Your task to perform on an android device: Go to wifi settings Image 0: 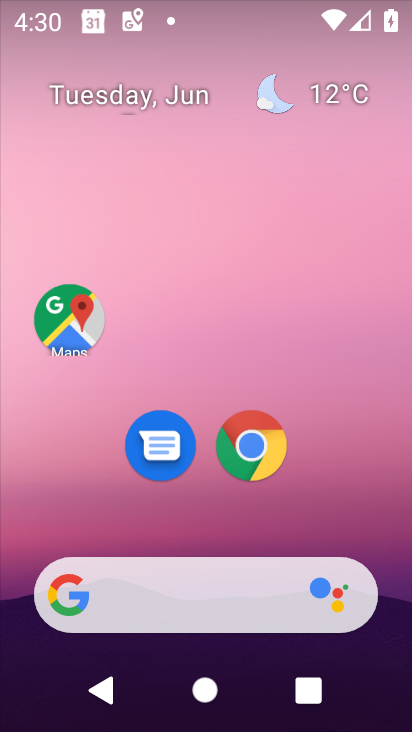
Step 0: drag from (363, 468) to (324, 17)
Your task to perform on an android device: Go to wifi settings Image 1: 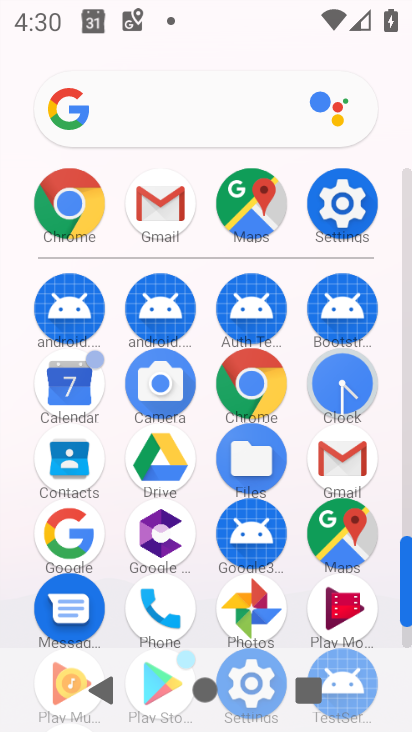
Step 1: click (346, 230)
Your task to perform on an android device: Go to wifi settings Image 2: 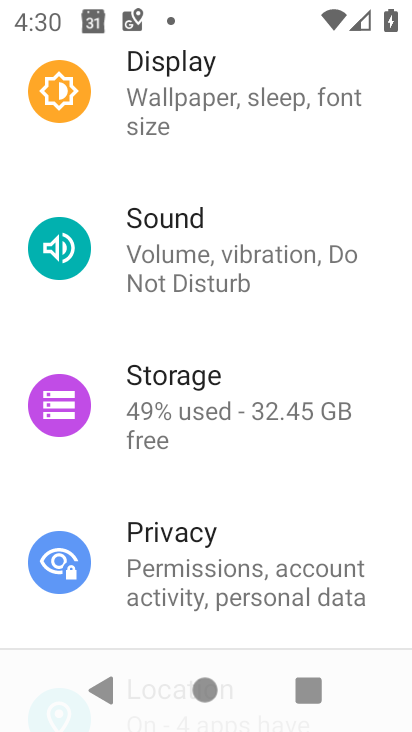
Step 2: drag from (275, 191) to (234, 646)
Your task to perform on an android device: Go to wifi settings Image 3: 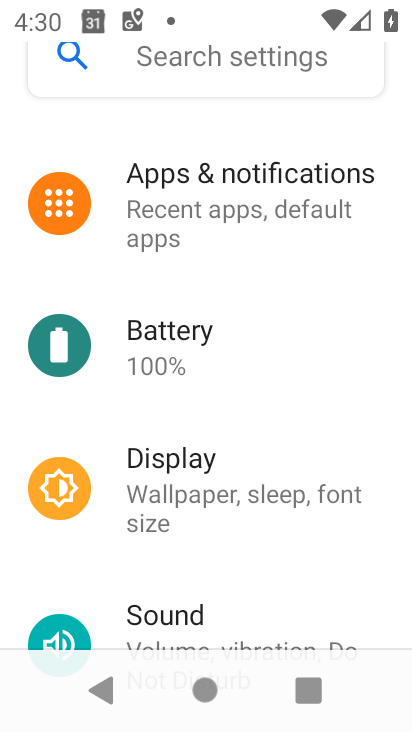
Step 3: drag from (242, 282) to (252, 648)
Your task to perform on an android device: Go to wifi settings Image 4: 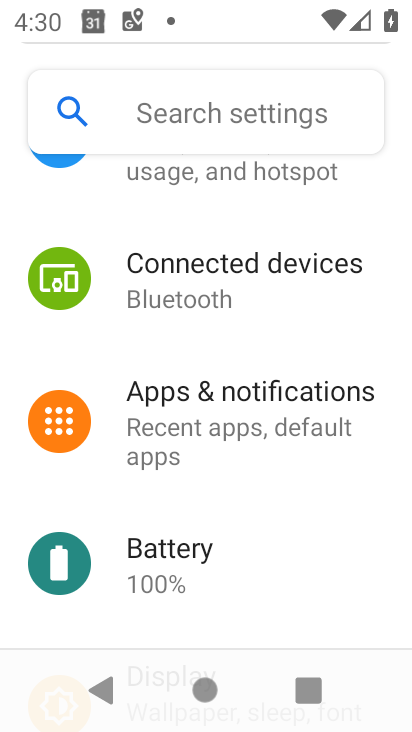
Step 4: drag from (234, 238) to (280, 701)
Your task to perform on an android device: Go to wifi settings Image 5: 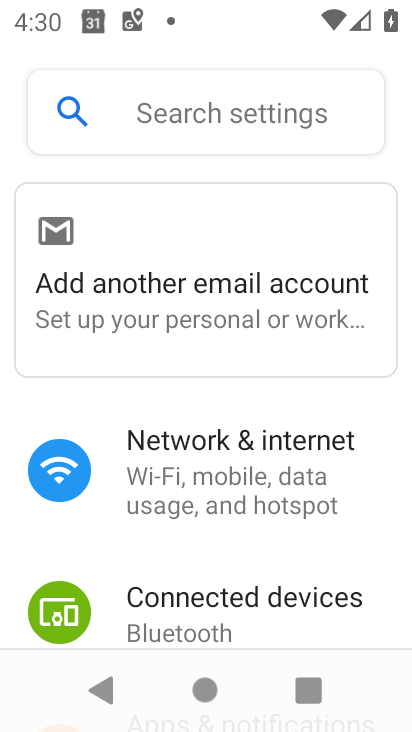
Step 5: click (190, 471)
Your task to perform on an android device: Go to wifi settings Image 6: 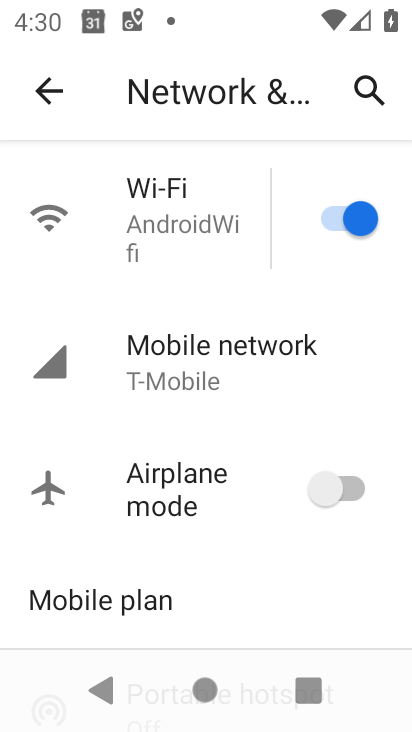
Step 6: click (244, 204)
Your task to perform on an android device: Go to wifi settings Image 7: 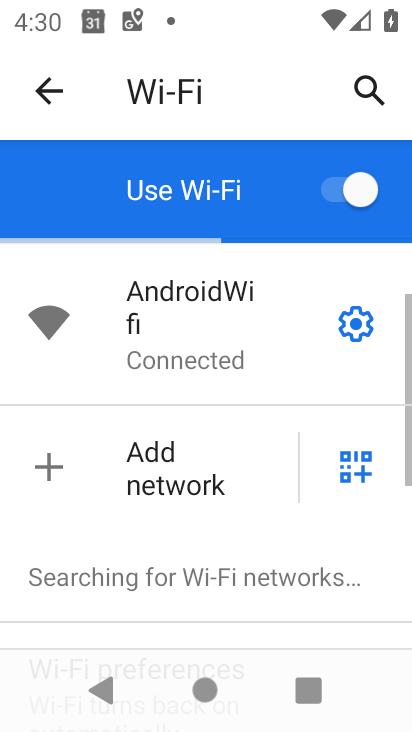
Step 7: task complete